Your task to perform on an android device: Search for "razer huntsman" on ebay.com, select the first entry, add it to the cart, then select checkout. Image 0: 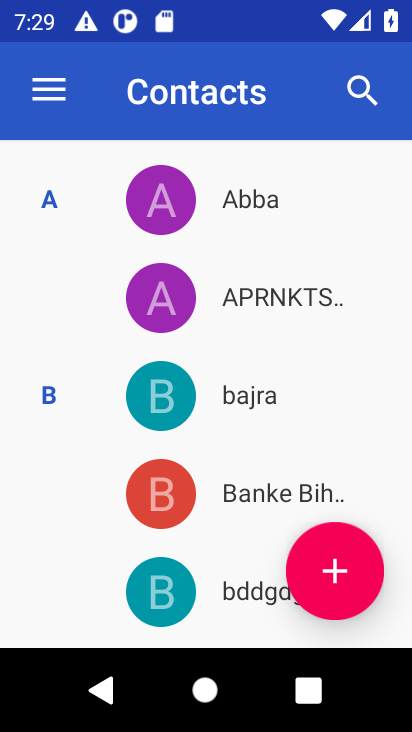
Step 0: press home button
Your task to perform on an android device: Search for "razer huntsman" on ebay.com, select the first entry, add it to the cart, then select checkout. Image 1: 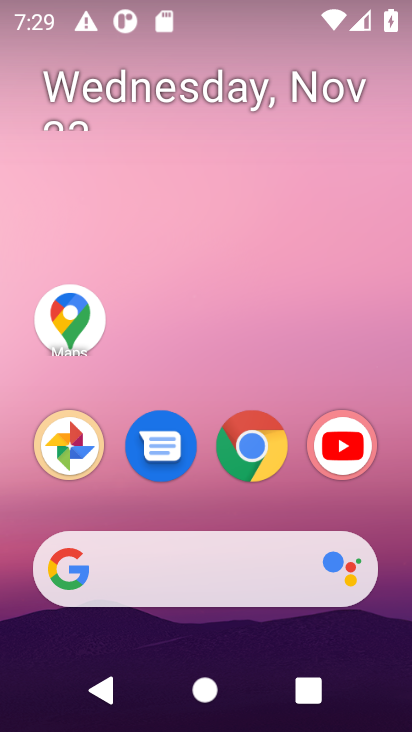
Step 1: click (190, 546)
Your task to perform on an android device: Search for "razer huntsman" on ebay.com, select the first entry, add it to the cart, then select checkout. Image 2: 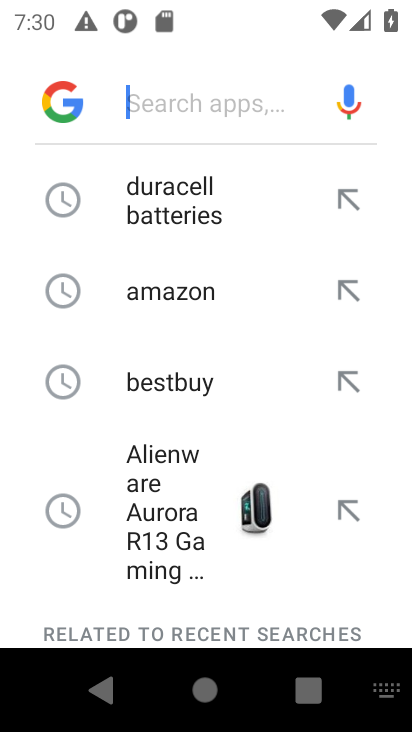
Step 2: type "ebay.com"
Your task to perform on an android device: Search for "razer huntsman" on ebay.com, select the first entry, add it to the cart, then select checkout. Image 3: 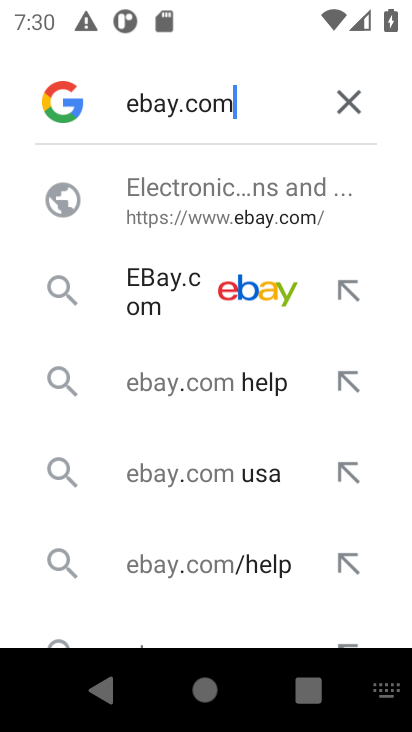
Step 3: click (182, 217)
Your task to perform on an android device: Search for "razer huntsman" on ebay.com, select the first entry, add it to the cart, then select checkout. Image 4: 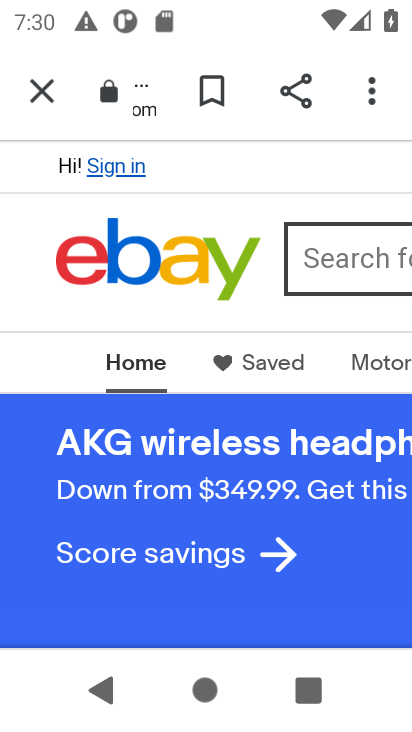
Step 4: click (337, 274)
Your task to perform on an android device: Search for "razer huntsman" on ebay.com, select the first entry, add it to the cart, then select checkout. Image 5: 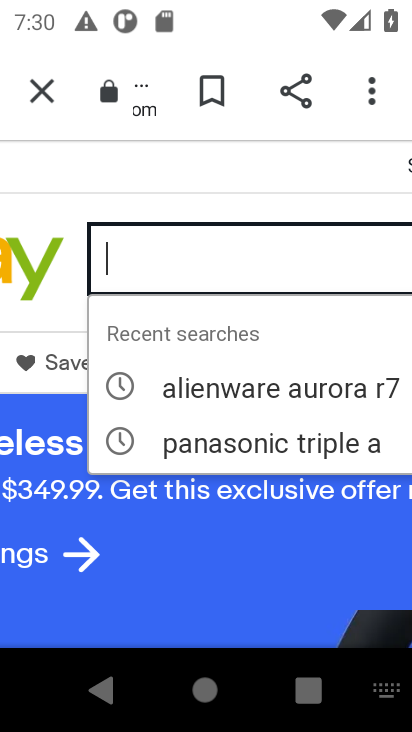
Step 5: type "razer huntsman"
Your task to perform on an android device: Search for "razer huntsman" on ebay.com, select the first entry, add it to the cart, then select checkout. Image 6: 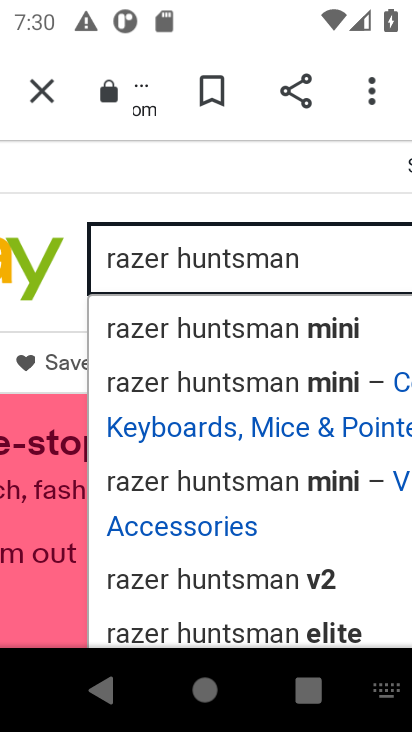
Step 6: click (189, 561)
Your task to perform on an android device: Search for "razer huntsman" on ebay.com, select the first entry, add it to the cart, then select checkout. Image 7: 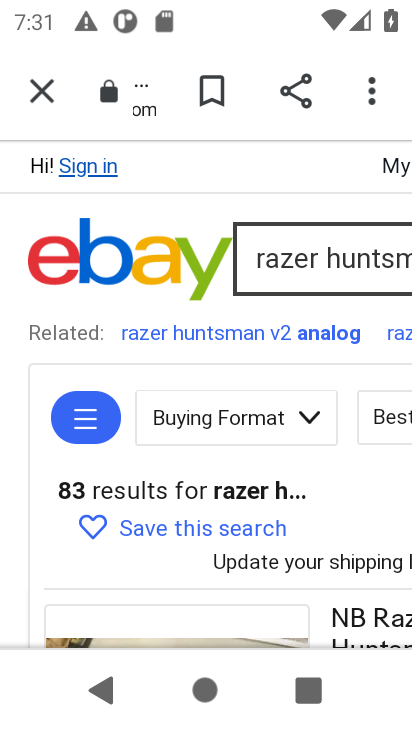
Step 7: drag from (207, 606) to (218, 242)
Your task to perform on an android device: Search for "razer huntsman" on ebay.com, select the first entry, add it to the cart, then select checkout. Image 8: 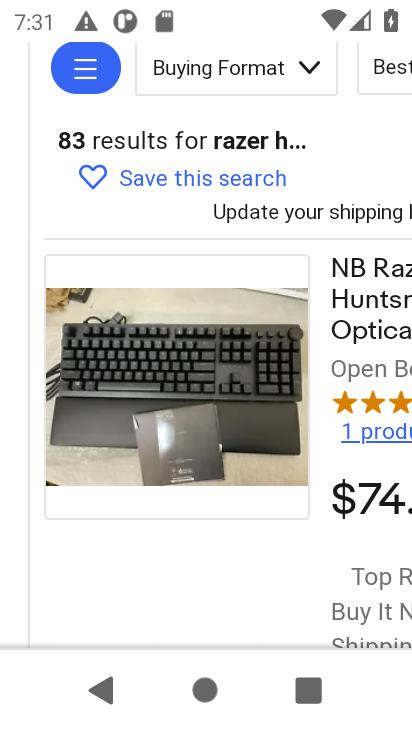
Step 8: click (365, 356)
Your task to perform on an android device: Search for "razer huntsman" on ebay.com, select the first entry, add it to the cart, then select checkout. Image 9: 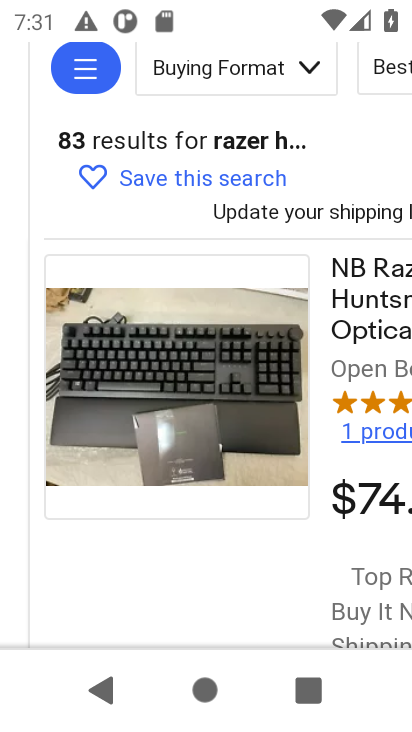
Step 9: click (362, 303)
Your task to perform on an android device: Search for "razer huntsman" on ebay.com, select the first entry, add it to the cart, then select checkout. Image 10: 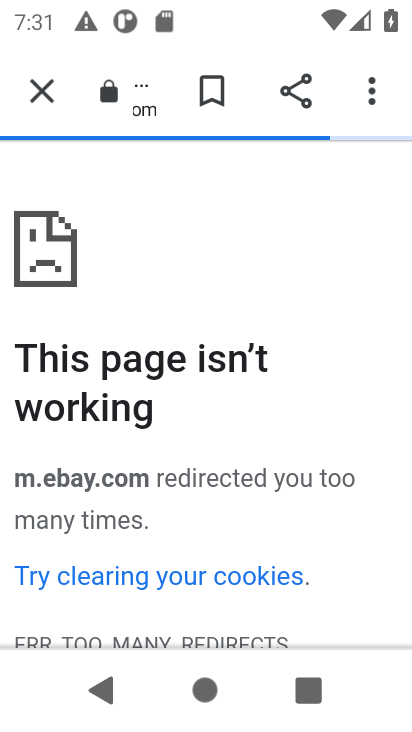
Step 10: task complete